Your task to perform on an android device: Search for Italian restaurants on Maps Image 0: 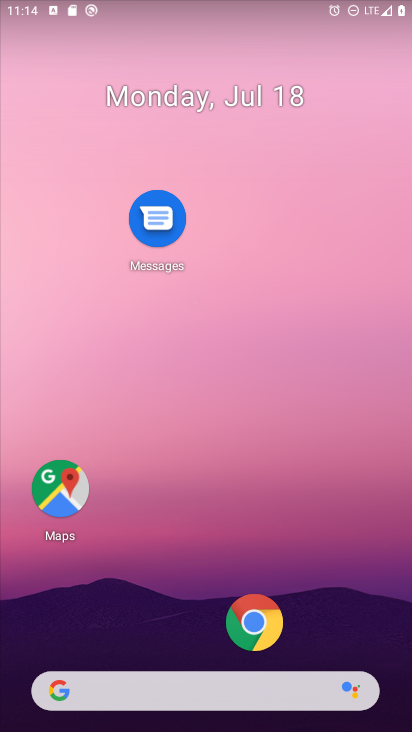
Step 0: drag from (256, 611) to (405, 335)
Your task to perform on an android device: Search for Italian restaurants on Maps Image 1: 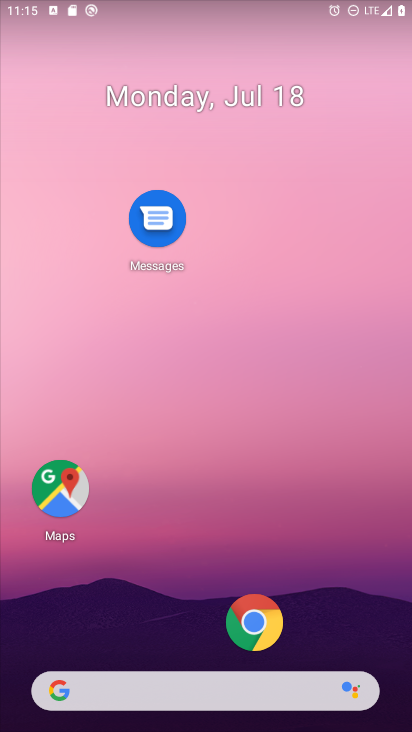
Step 1: drag from (248, 515) to (272, 216)
Your task to perform on an android device: Search for Italian restaurants on Maps Image 2: 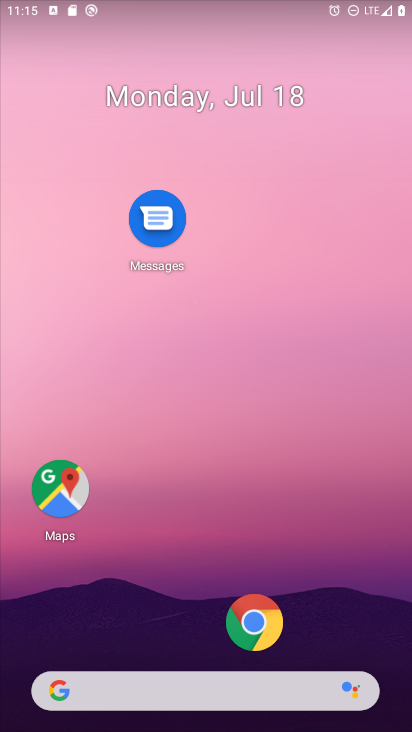
Step 2: drag from (218, 570) to (220, 202)
Your task to perform on an android device: Search for Italian restaurants on Maps Image 3: 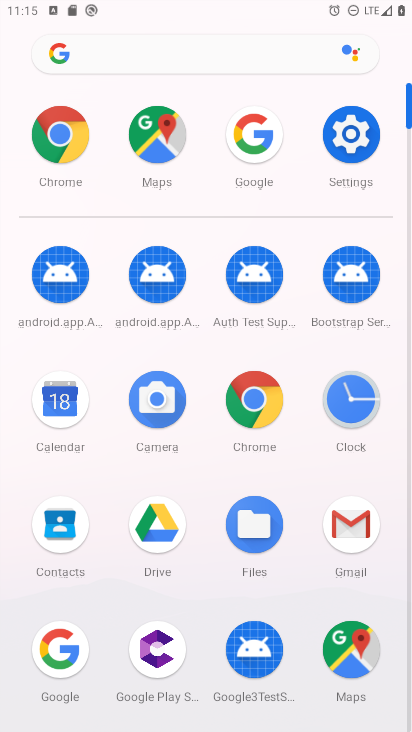
Step 3: drag from (226, 458) to (220, 189)
Your task to perform on an android device: Search for Italian restaurants on Maps Image 4: 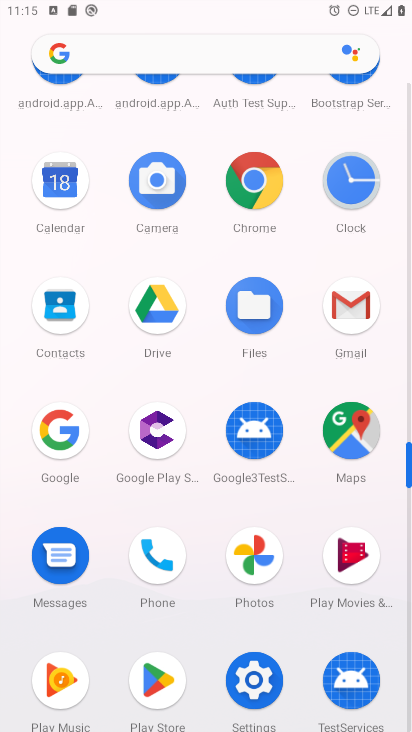
Step 4: click (359, 441)
Your task to perform on an android device: Search for Italian restaurants on Maps Image 5: 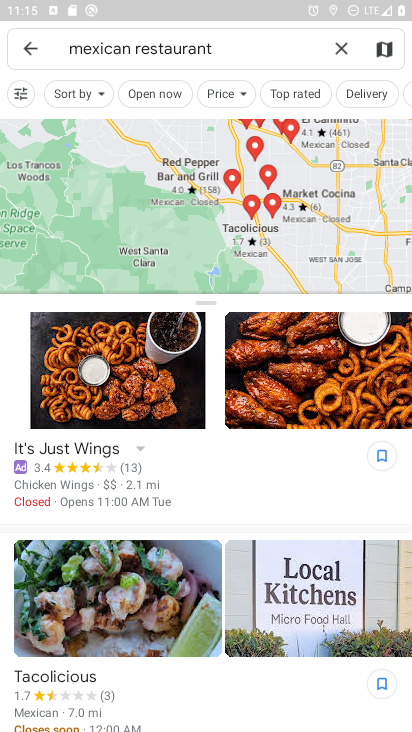
Step 5: click (344, 50)
Your task to perform on an android device: Search for Italian restaurants on Maps Image 6: 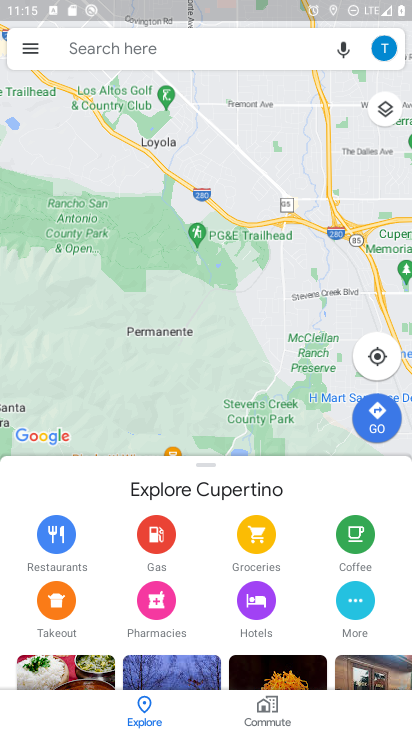
Step 6: click (276, 53)
Your task to perform on an android device: Search for Italian restaurants on Maps Image 7: 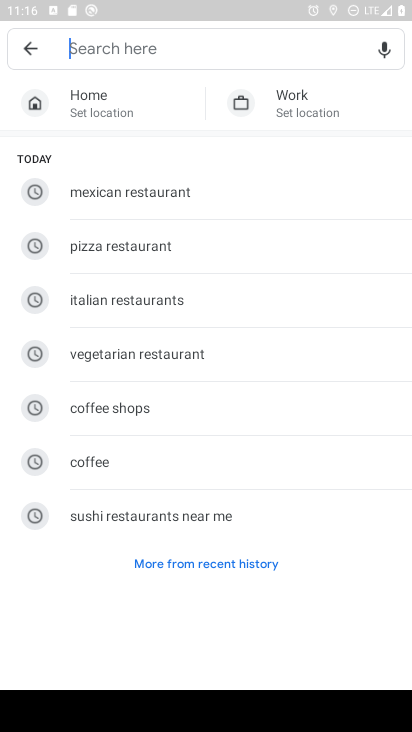
Step 7: type "italian"
Your task to perform on an android device: Search for Italian restaurants on Maps Image 8: 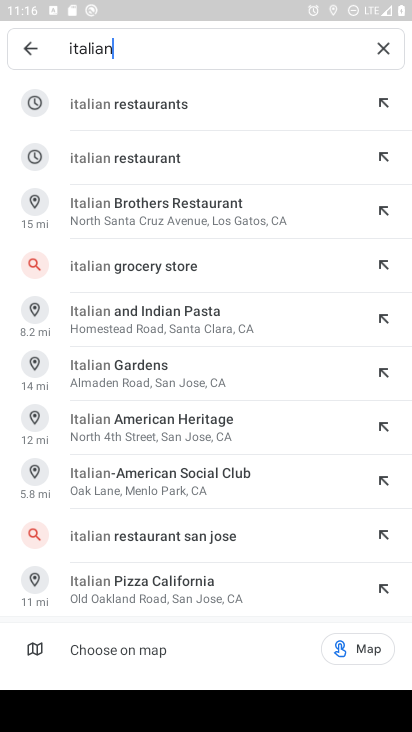
Step 8: click (150, 154)
Your task to perform on an android device: Search for Italian restaurants on Maps Image 9: 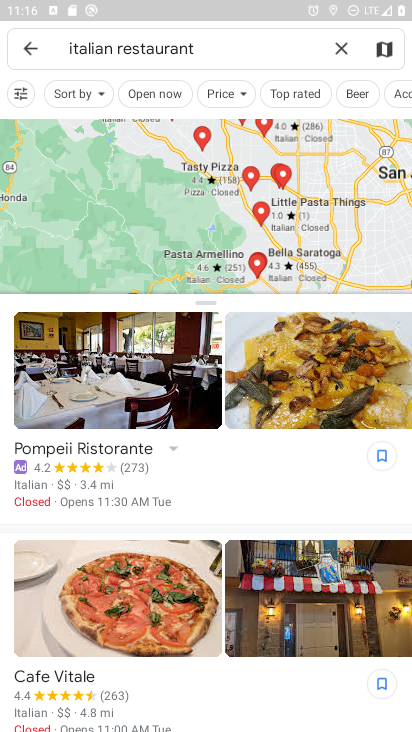
Step 9: task complete